Your task to perform on an android device: Show me popular videos on Youtube Image 0: 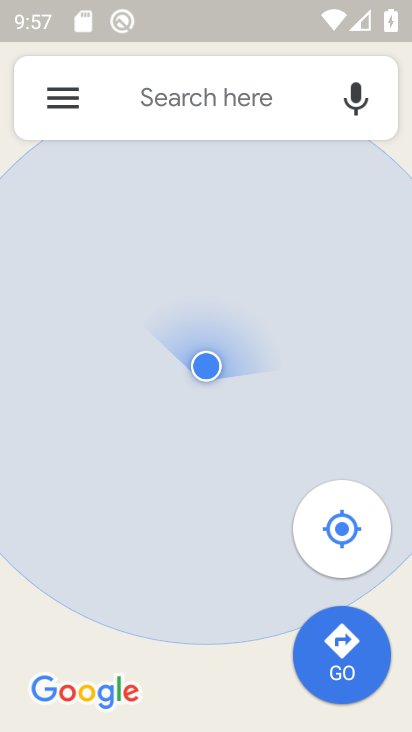
Step 0: press home button
Your task to perform on an android device: Show me popular videos on Youtube Image 1: 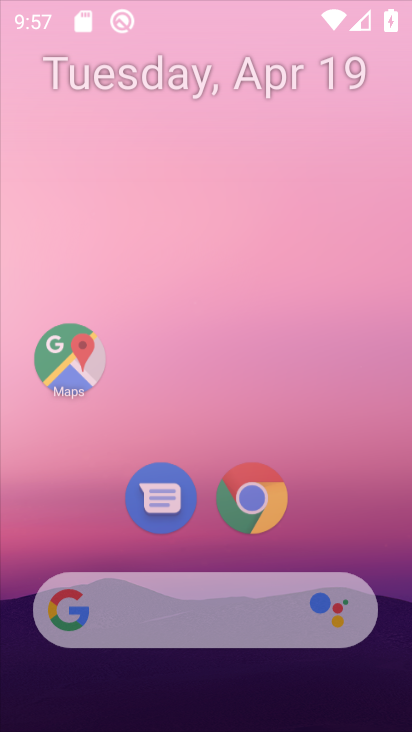
Step 1: click (45, 357)
Your task to perform on an android device: Show me popular videos on Youtube Image 2: 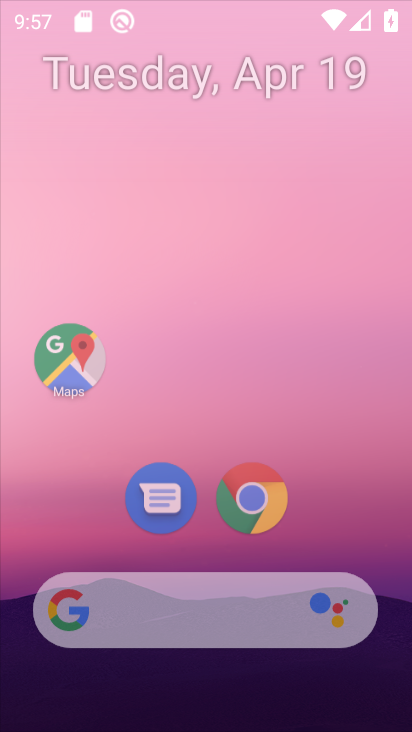
Step 2: click (82, 336)
Your task to perform on an android device: Show me popular videos on Youtube Image 3: 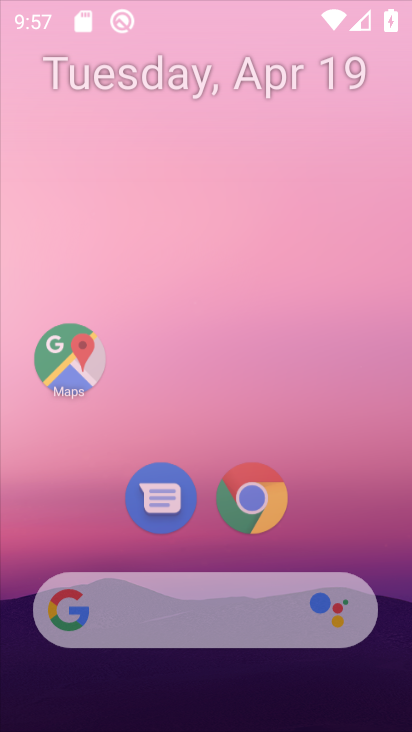
Step 3: click (82, 336)
Your task to perform on an android device: Show me popular videos on Youtube Image 4: 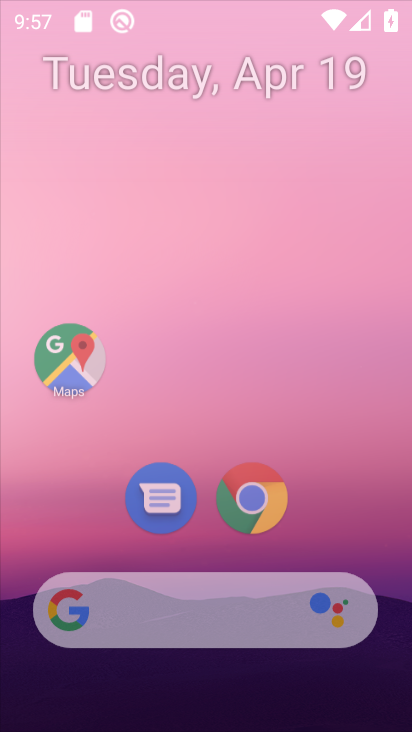
Step 4: click (82, 363)
Your task to perform on an android device: Show me popular videos on Youtube Image 5: 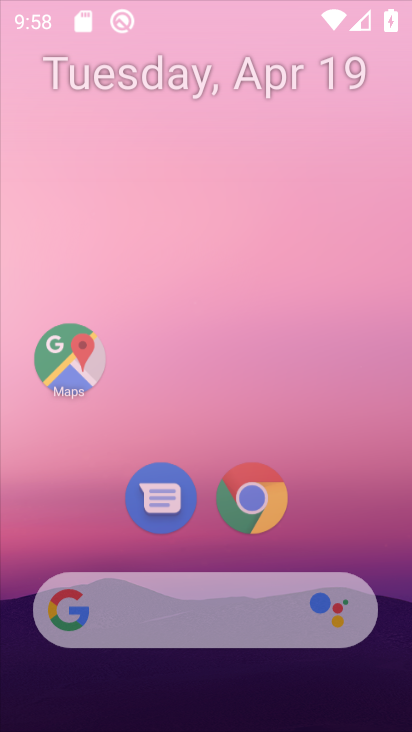
Step 5: drag from (384, 477) to (344, 146)
Your task to perform on an android device: Show me popular videos on Youtube Image 6: 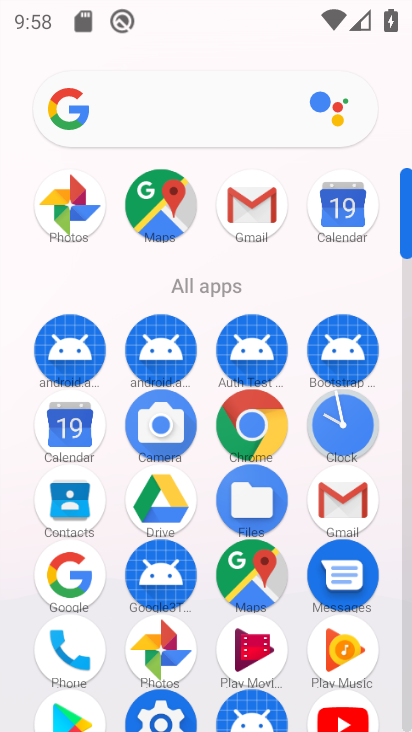
Step 6: click (343, 713)
Your task to perform on an android device: Show me popular videos on Youtube Image 7: 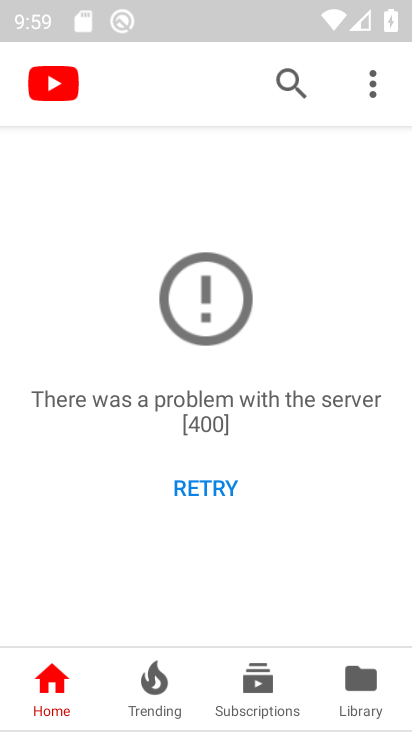
Step 7: task complete